Your task to perform on an android device: What is the recent news? Image 0: 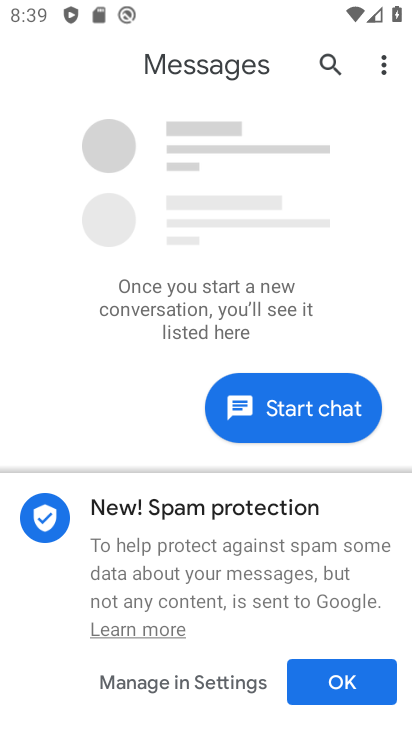
Step 0: press home button
Your task to perform on an android device: What is the recent news? Image 1: 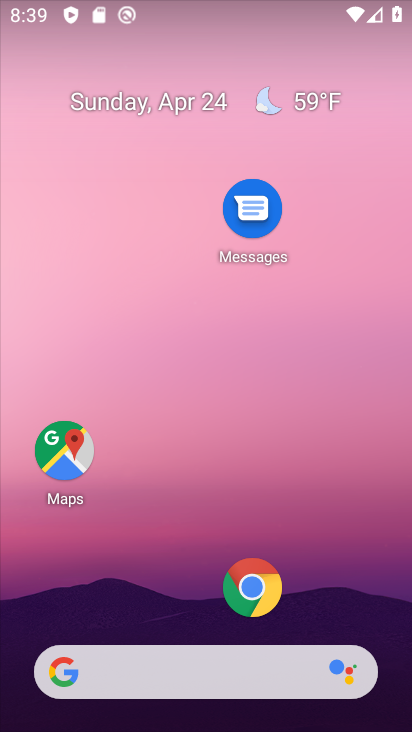
Step 1: click (173, 671)
Your task to perform on an android device: What is the recent news? Image 2: 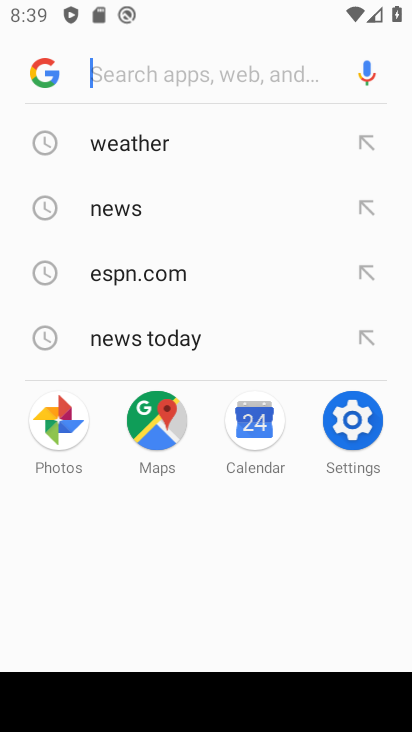
Step 2: type "recent news"
Your task to perform on an android device: What is the recent news? Image 3: 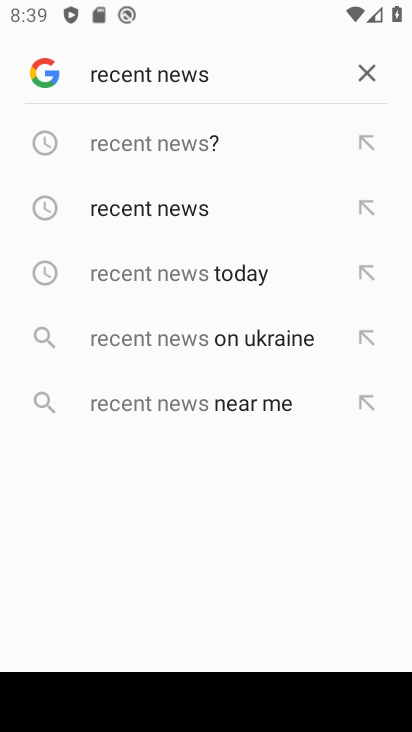
Step 3: click (165, 155)
Your task to perform on an android device: What is the recent news? Image 4: 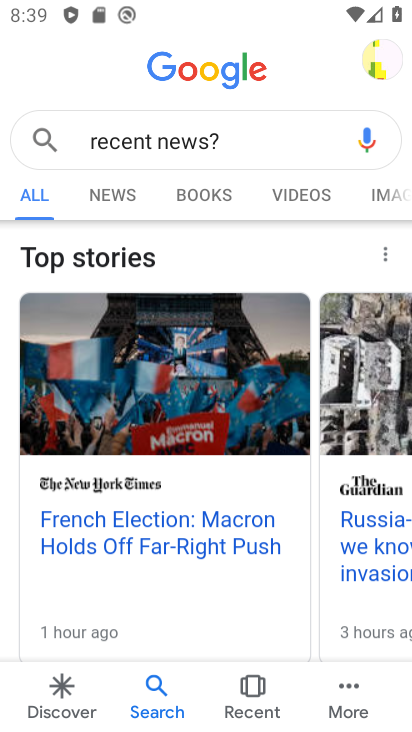
Step 4: task complete